Your task to perform on an android device: Open the Play Movies app and select the watchlist tab. Image 0: 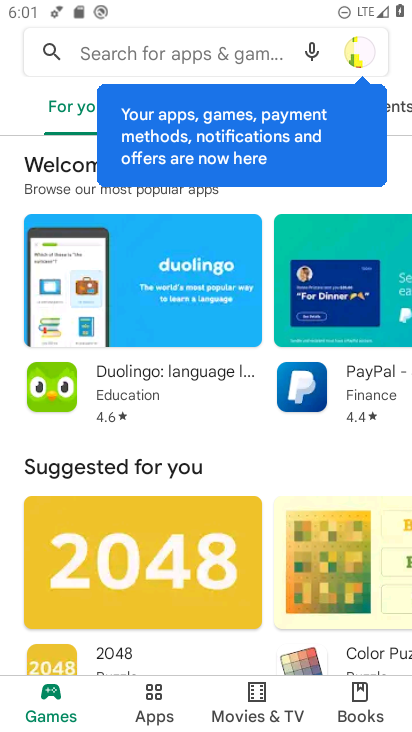
Step 0: press home button
Your task to perform on an android device: Open the Play Movies app and select the watchlist tab. Image 1: 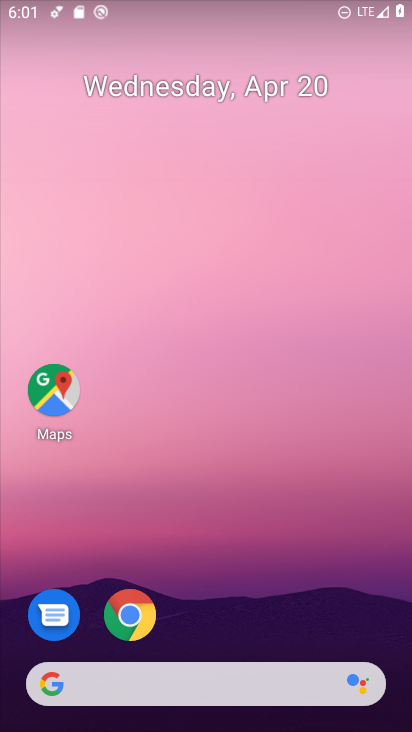
Step 1: drag from (259, 595) to (231, 63)
Your task to perform on an android device: Open the Play Movies app and select the watchlist tab. Image 2: 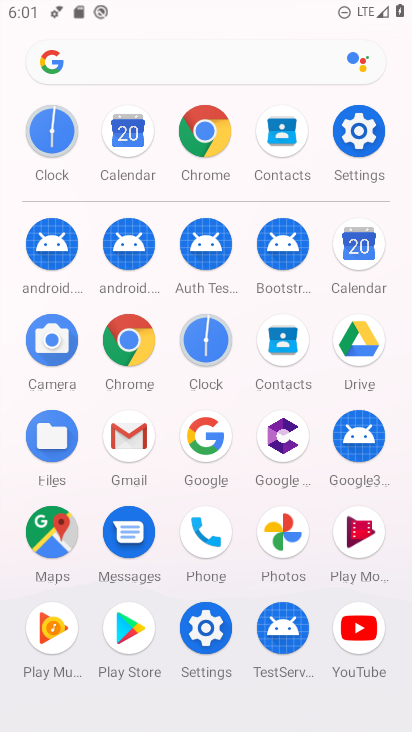
Step 2: click (363, 534)
Your task to perform on an android device: Open the Play Movies app and select the watchlist tab. Image 3: 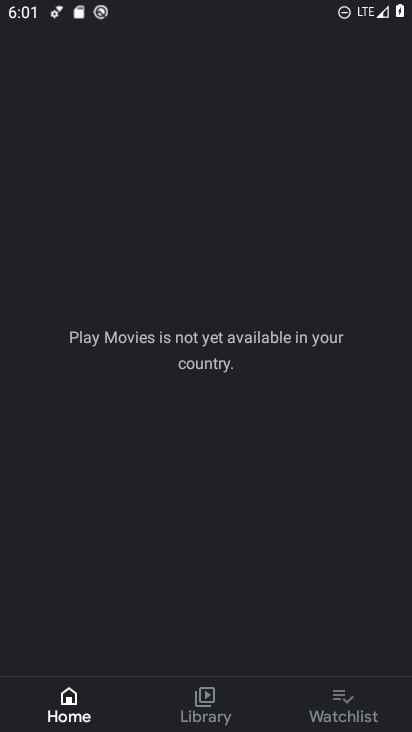
Step 3: click (347, 700)
Your task to perform on an android device: Open the Play Movies app and select the watchlist tab. Image 4: 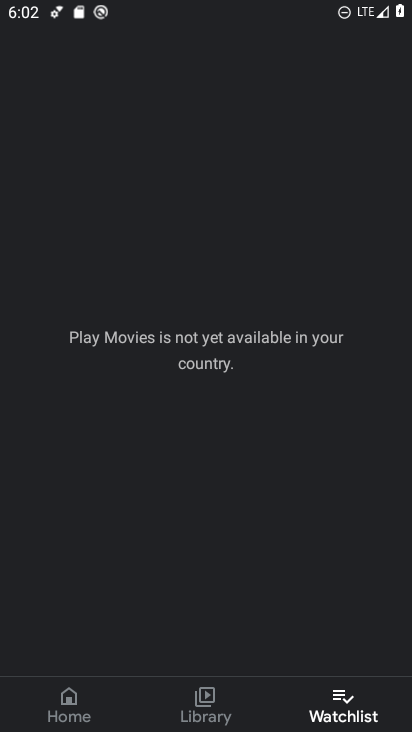
Step 4: task complete